Your task to perform on an android device: turn off translation in the chrome app Image 0: 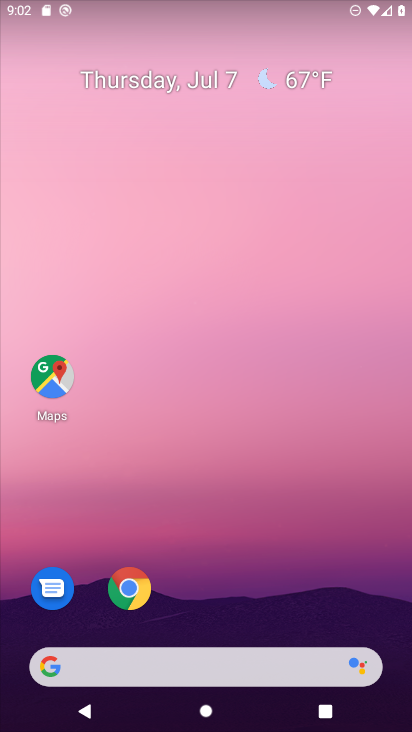
Step 0: click (130, 588)
Your task to perform on an android device: turn off translation in the chrome app Image 1: 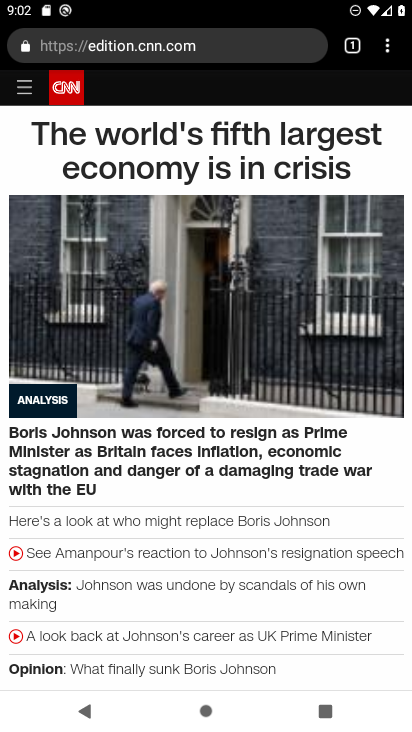
Step 1: click (388, 51)
Your task to perform on an android device: turn off translation in the chrome app Image 2: 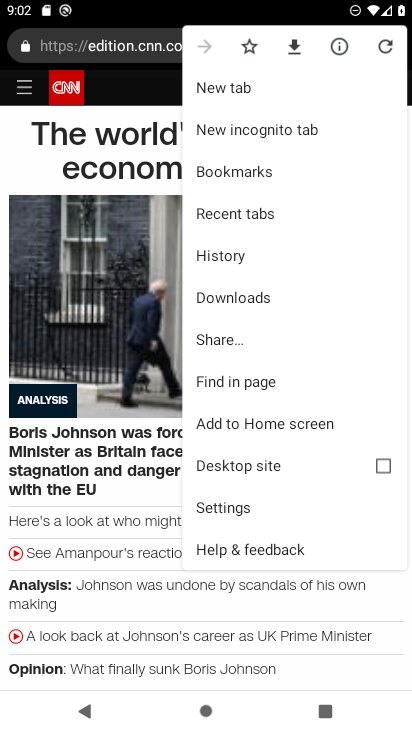
Step 2: click (227, 503)
Your task to perform on an android device: turn off translation in the chrome app Image 3: 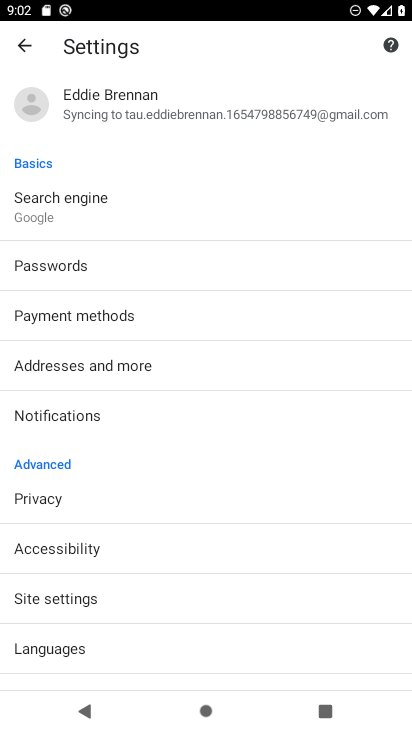
Step 3: click (63, 646)
Your task to perform on an android device: turn off translation in the chrome app Image 4: 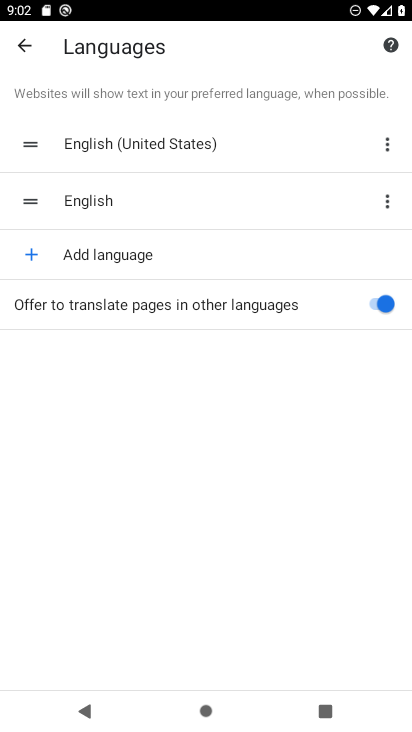
Step 4: click (379, 304)
Your task to perform on an android device: turn off translation in the chrome app Image 5: 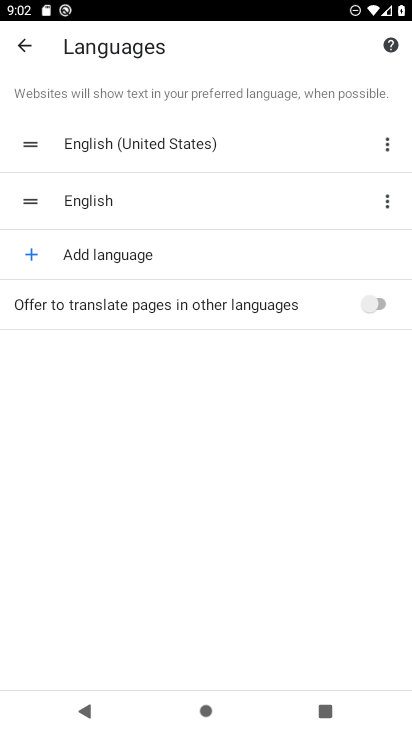
Step 5: task complete